Your task to perform on an android device: turn off wifi Image 0: 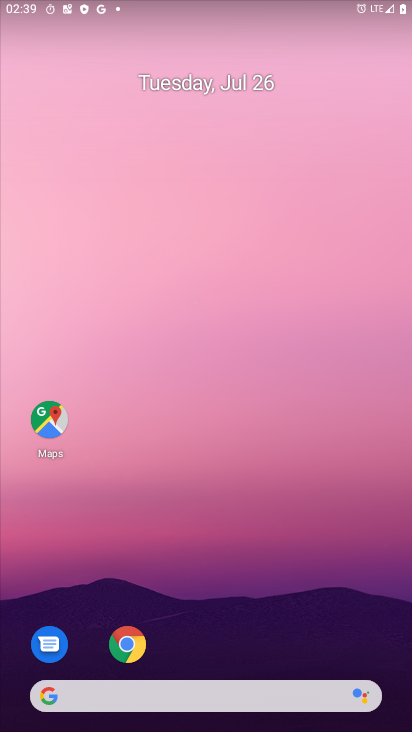
Step 0: drag from (240, 667) to (261, 10)
Your task to perform on an android device: turn off wifi Image 1: 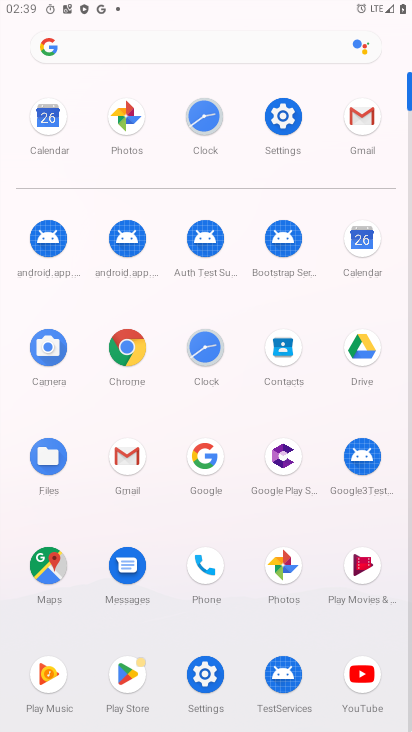
Step 1: click (284, 118)
Your task to perform on an android device: turn off wifi Image 2: 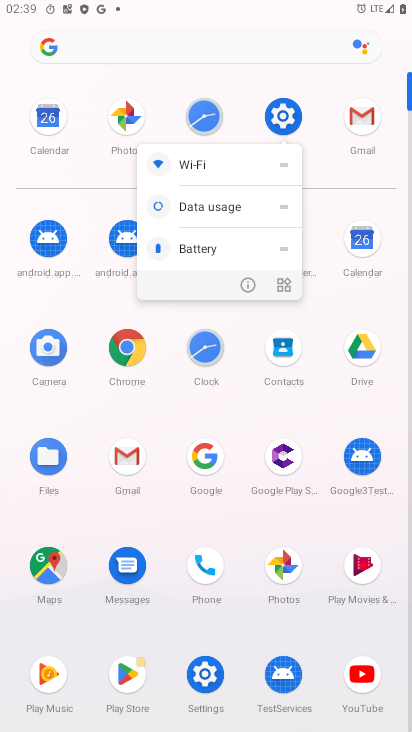
Step 2: click (284, 118)
Your task to perform on an android device: turn off wifi Image 3: 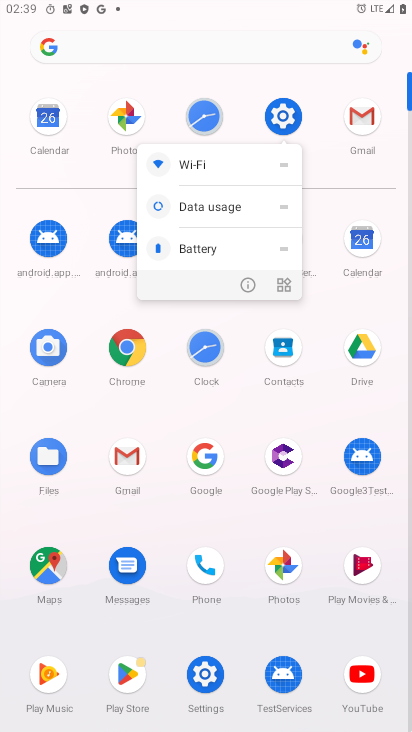
Step 3: click (278, 114)
Your task to perform on an android device: turn off wifi Image 4: 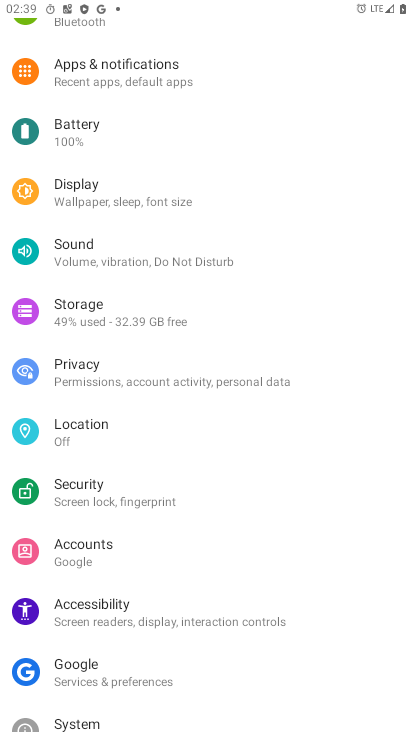
Step 4: drag from (176, 170) to (208, 447)
Your task to perform on an android device: turn off wifi Image 5: 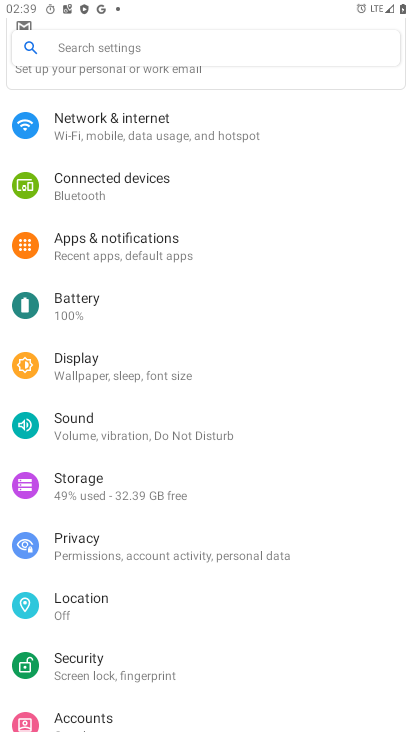
Step 5: click (118, 118)
Your task to perform on an android device: turn off wifi Image 6: 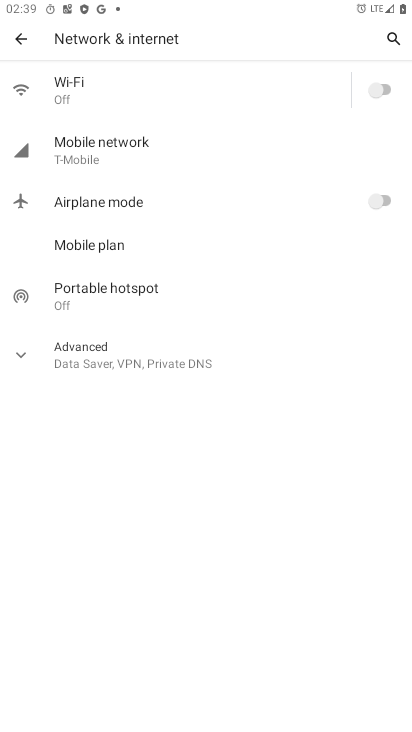
Step 6: task complete